Your task to perform on an android device: What's the weather today? Image 0: 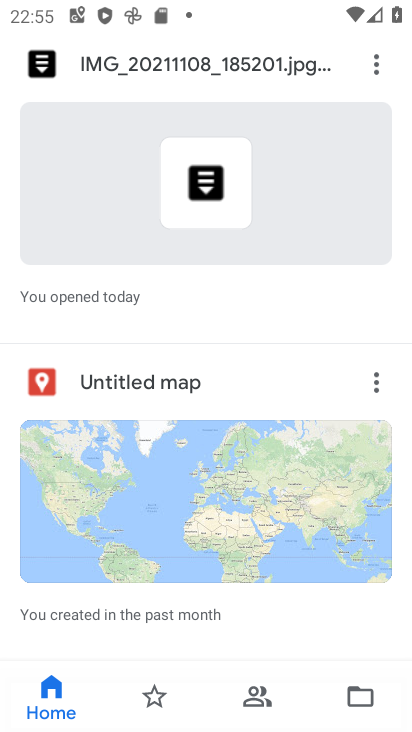
Step 0: drag from (234, 516) to (240, 67)
Your task to perform on an android device: What's the weather today? Image 1: 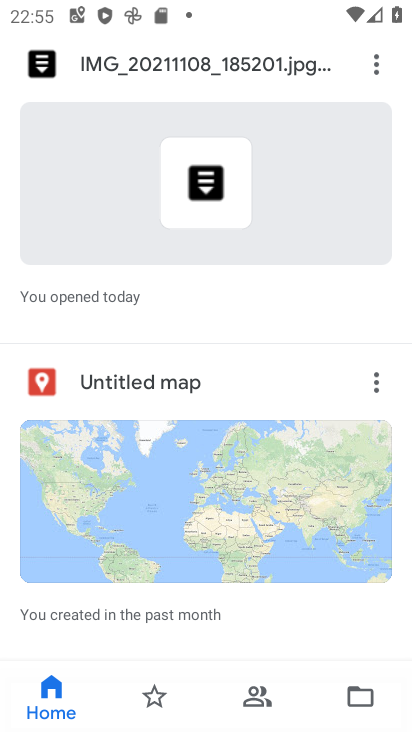
Step 1: press home button
Your task to perform on an android device: What's the weather today? Image 2: 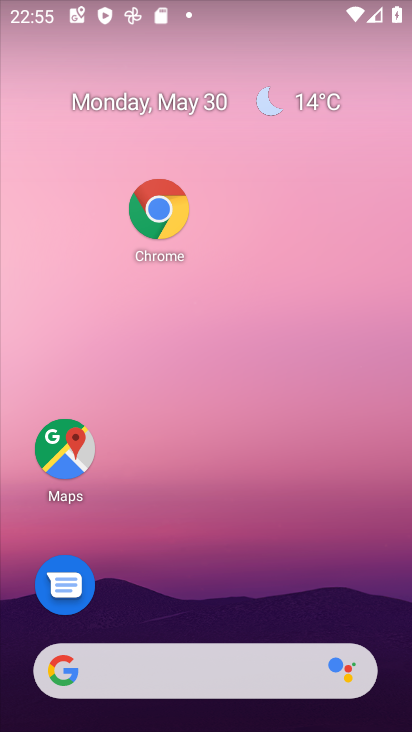
Step 2: drag from (207, 607) to (255, 4)
Your task to perform on an android device: What's the weather today? Image 3: 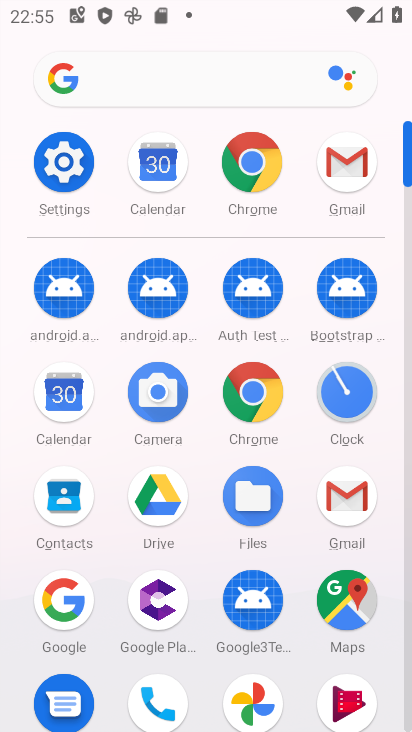
Step 3: click (173, 73)
Your task to perform on an android device: What's the weather today? Image 4: 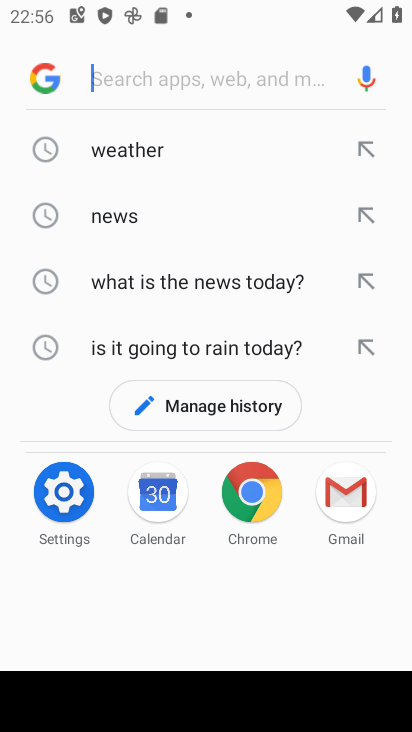
Step 4: type "weather today?"
Your task to perform on an android device: What's the weather today? Image 5: 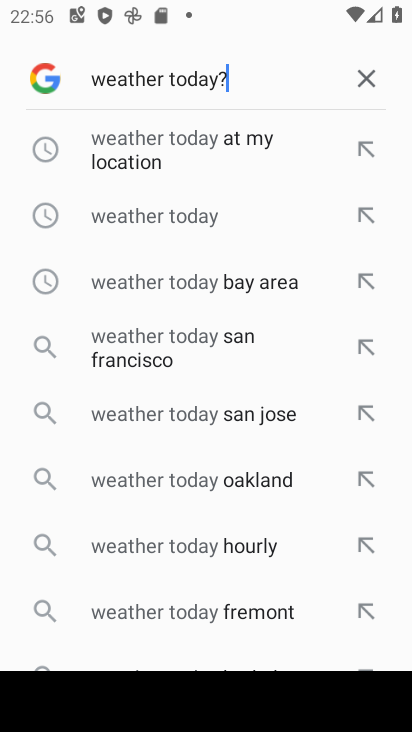
Step 5: type ""
Your task to perform on an android device: What's the weather today? Image 6: 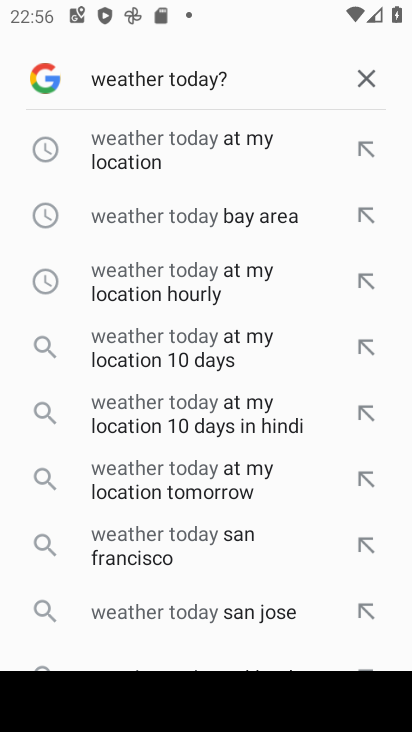
Step 6: click (53, 154)
Your task to perform on an android device: What's the weather today? Image 7: 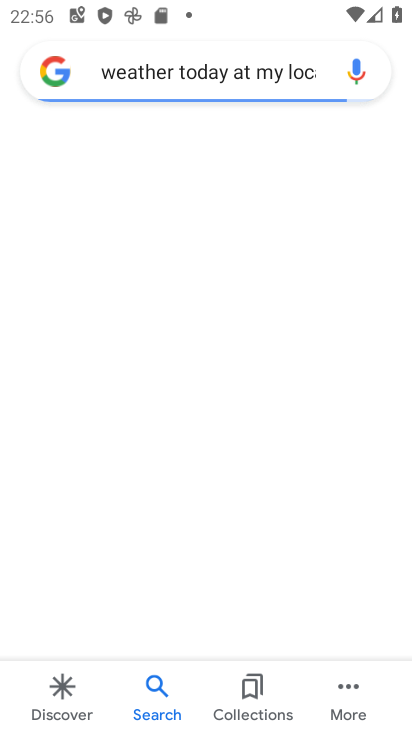
Step 7: task complete